Your task to perform on an android device: change alarm snooze length Image 0: 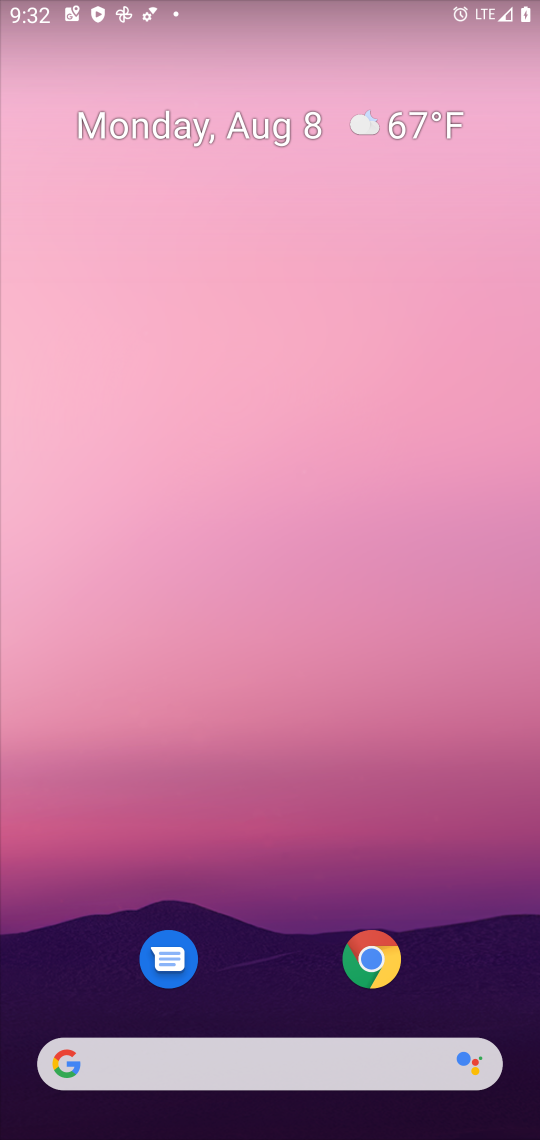
Step 0: drag from (510, 963) to (167, 89)
Your task to perform on an android device: change alarm snooze length Image 1: 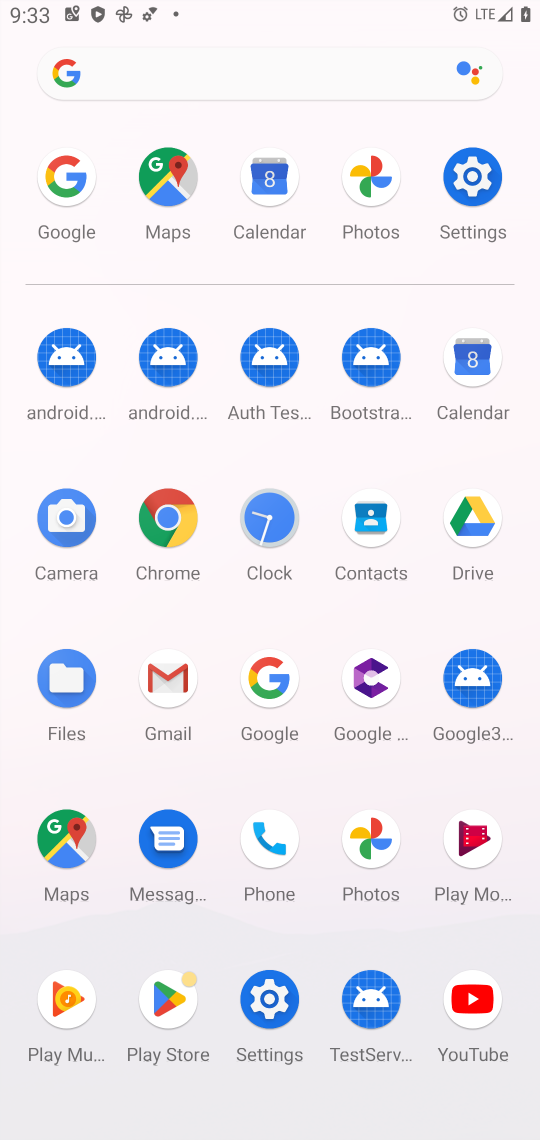
Step 1: click (253, 505)
Your task to perform on an android device: change alarm snooze length Image 2: 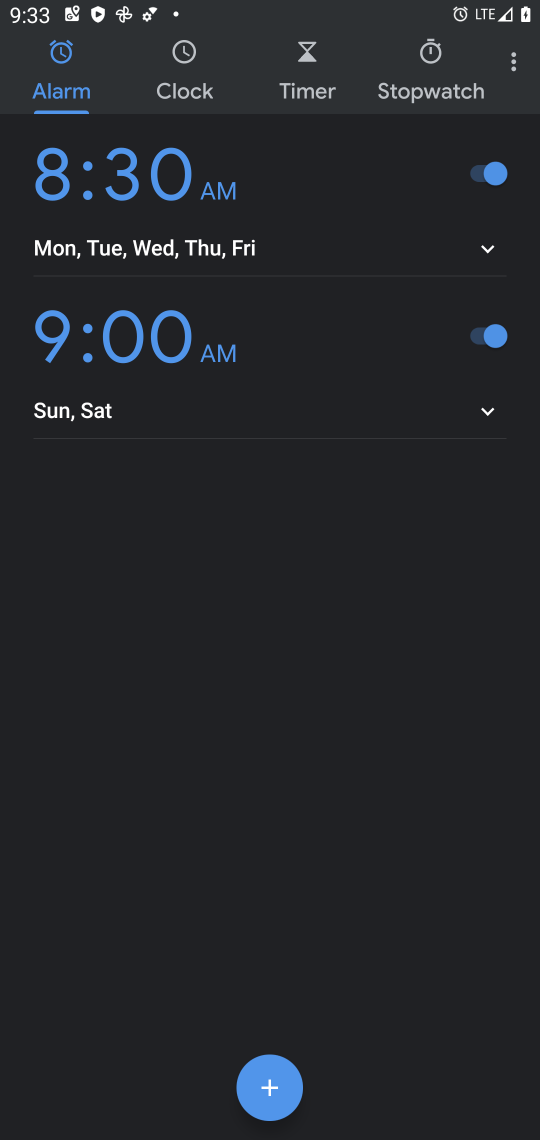
Step 2: click (521, 57)
Your task to perform on an android device: change alarm snooze length Image 3: 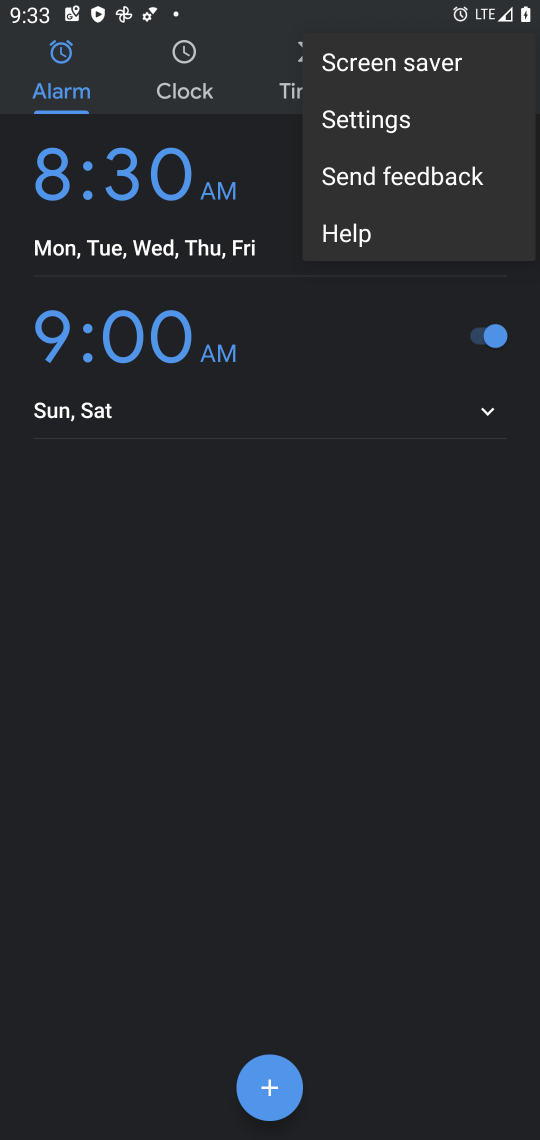
Step 3: click (398, 126)
Your task to perform on an android device: change alarm snooze length Image 4: 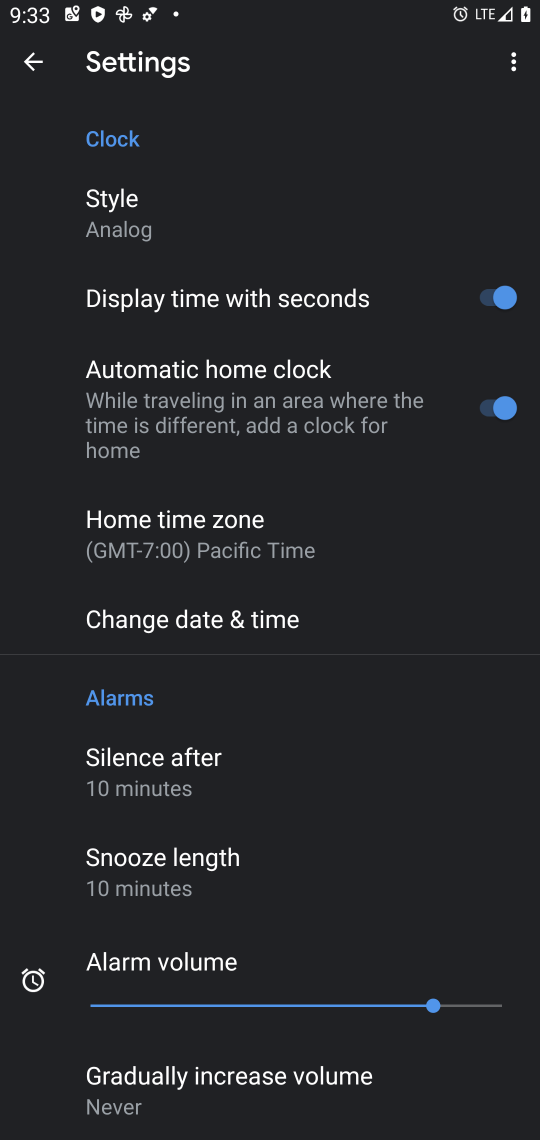
Step 4: click (177, 880)
Your task to perform on an android device: change alarm snooze length Image 5: 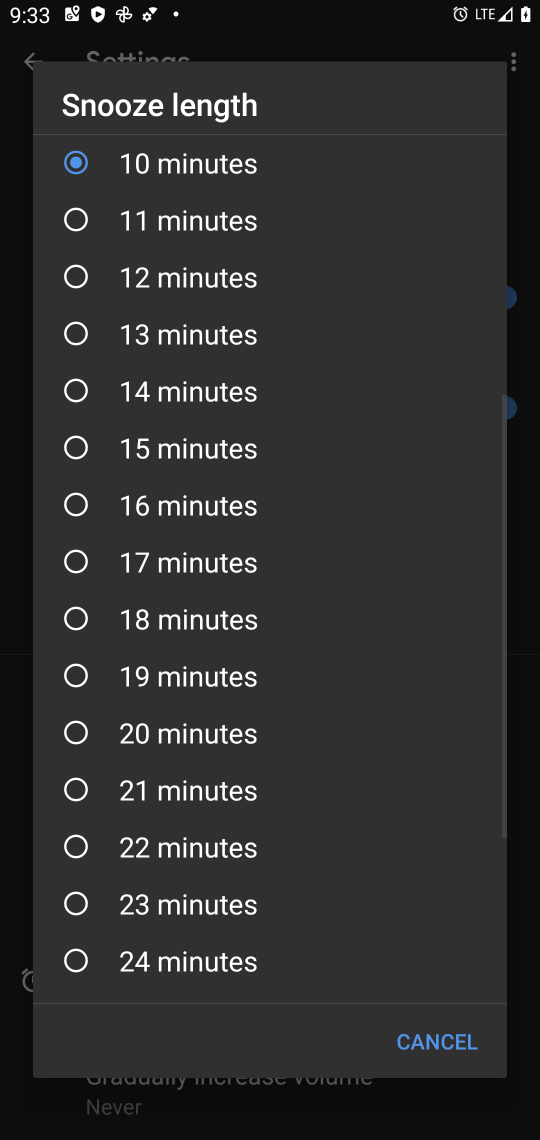
Step 5: click (76, 733)
Your task to perform on an android device: change alarm snooze length Image 6: 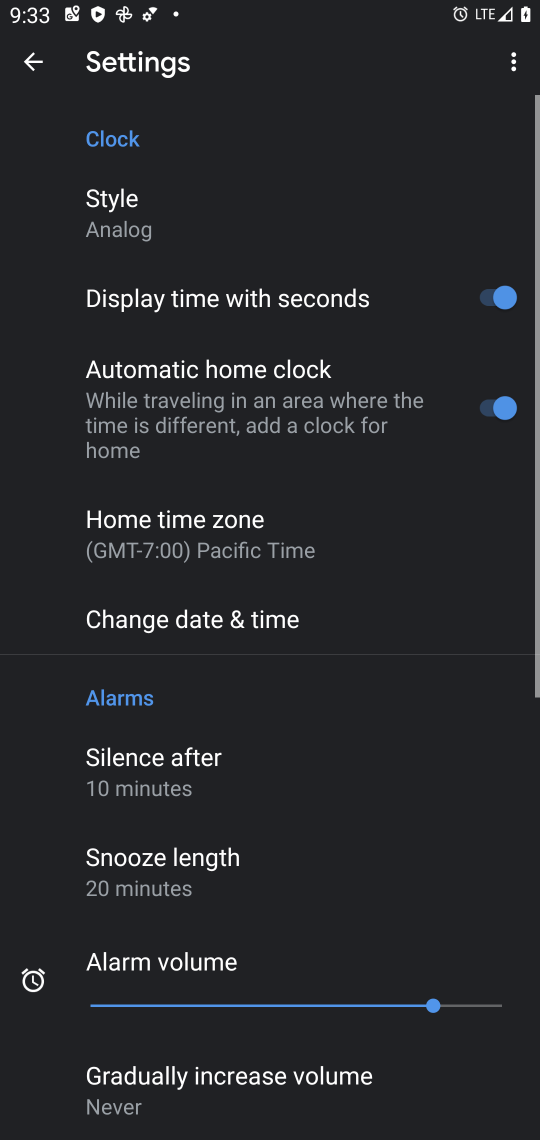
Step 6: task complete